Your task to perform on an android device: Toggle the flashlight Image 0: 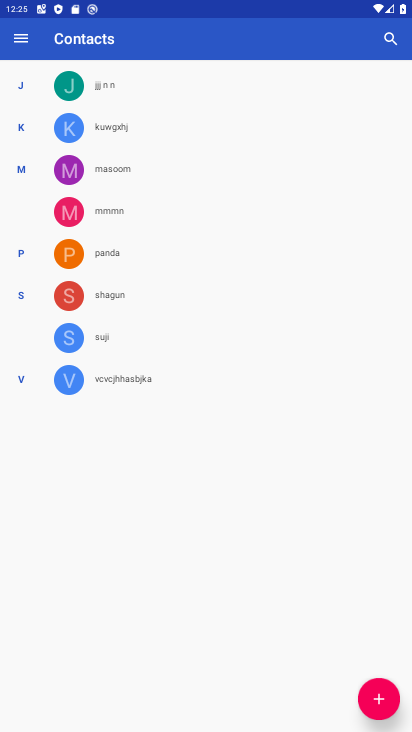
Step 0: press home button
Your task to perform on an android device: Toggle the flashlight Image 1: 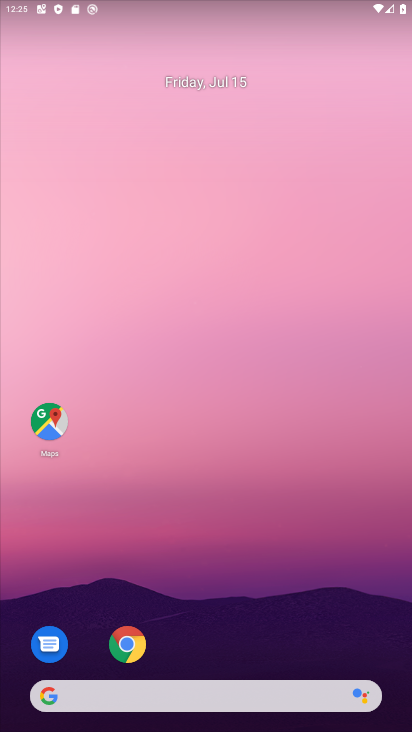
Step 1: drag from (33, 561) to (257, 125)
Your task to perform on an android device: Toggle the flashlight Image 2: 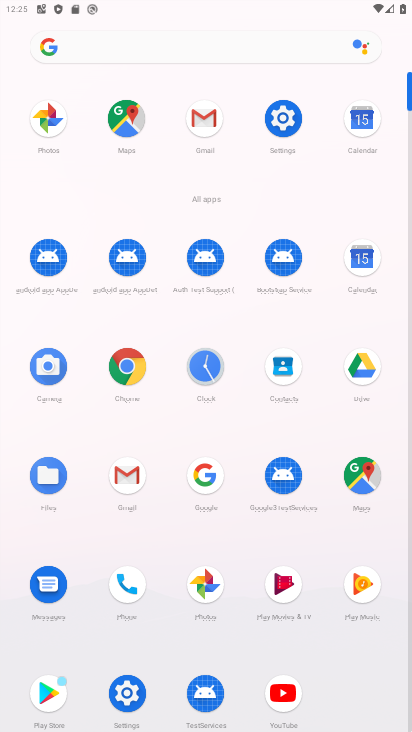
Step 2: click (289, 137)
Your task to perform on an android device: Toggle the flashlight Image 3: 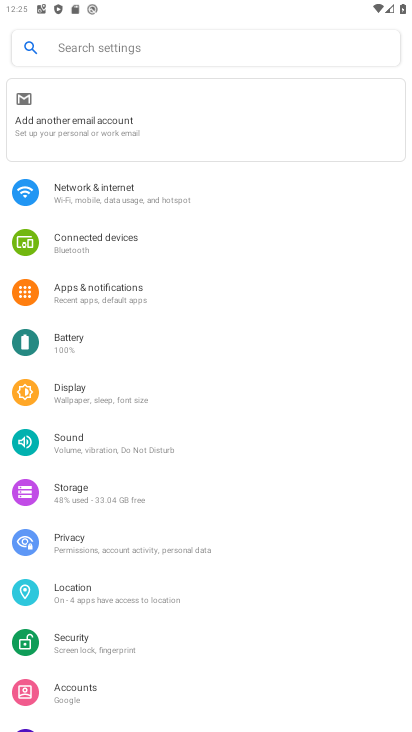
Step 3: task complete